Your task to perform on an android device: delete a single message in the gmail app Image 0: 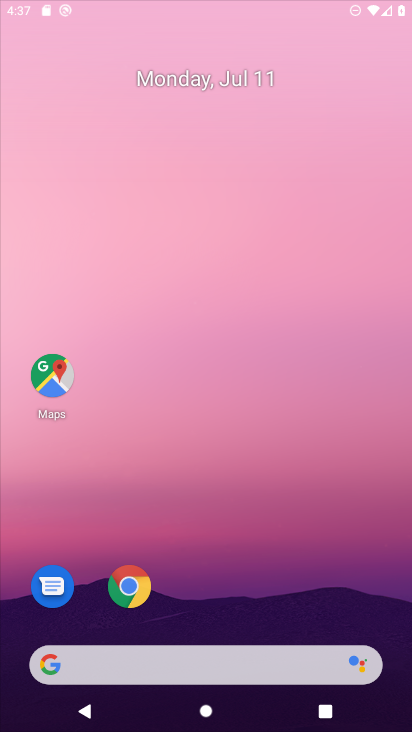
Step 0: press home button
Your task to perform on an android device: delete a single message in the gmail app Image 1: 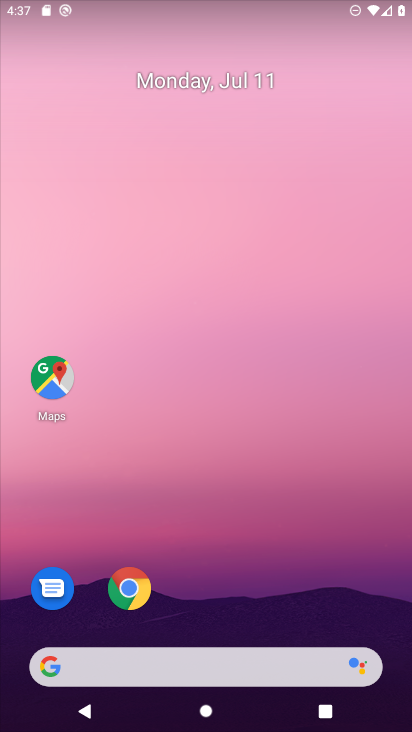
Step 1: drag from (204, 627) to (244, 82)
Your task to perform on an android device: delete a single message in the gmail app Image 2: 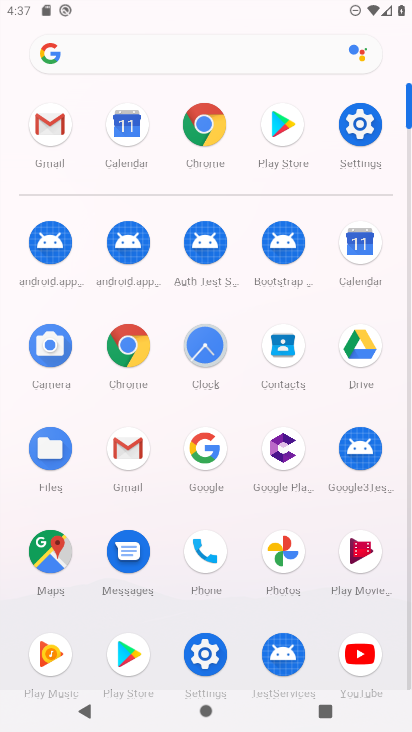
Step 2: click (48, 134)
Your task to perform on an android device: delete a single message in the gmail app Image 3: 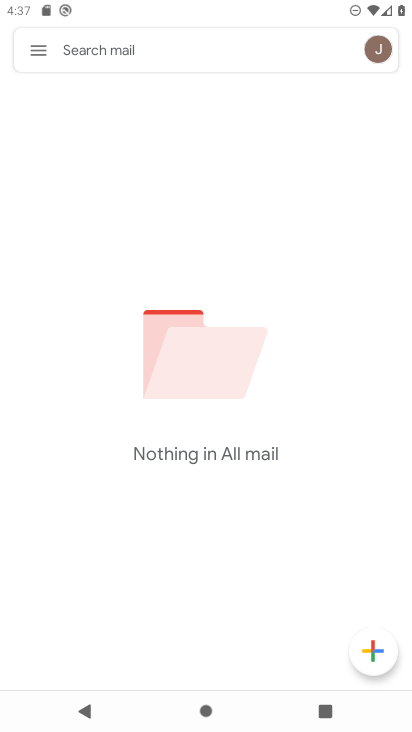
Step 3: click (40, 50)
Your task to perform on an android device: delete a single message in the gmail app Image 4: 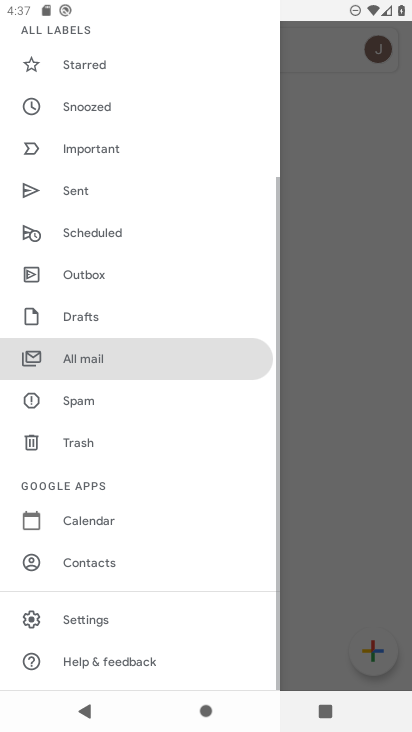
Step 4: click (70, 361)
Your task to perform on an android device: delete a single message in the gmail app Image 5: 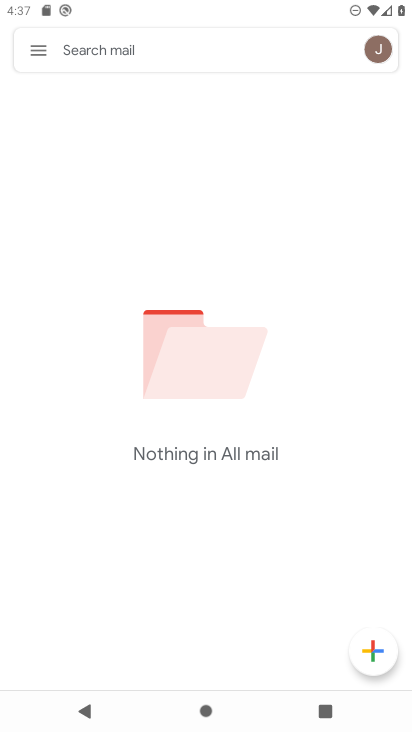
Step 5: task complete